Your task to perform on an android device: Open ESPN.com Image 0: 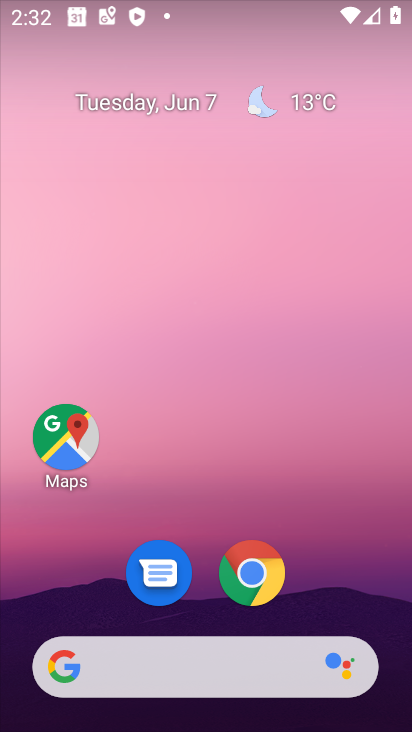
Step 0: click (256, 573)
Your task to perform on an android device: Open ESPN.com Image 1: 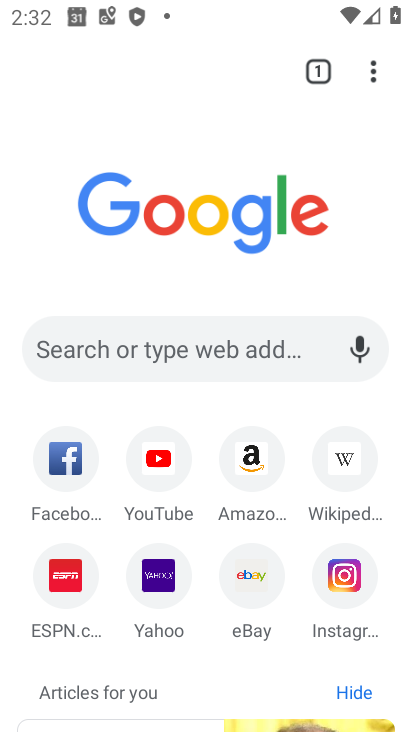
Step 1: click (65, 590)
Your task to perform on an android device: Open ESPN.com Image 2: 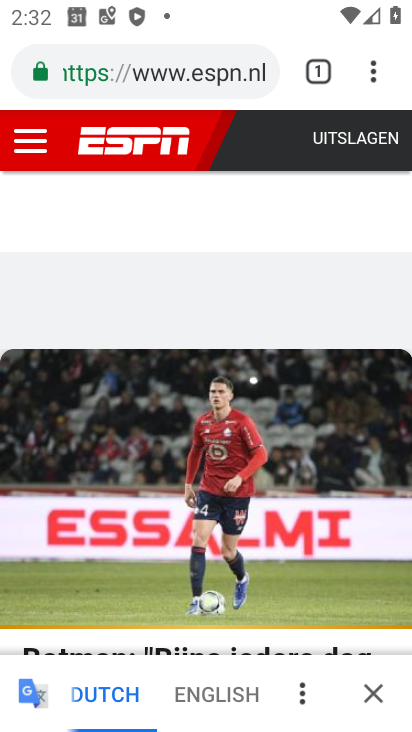
Step 2: task complete